Your task to perform on an android device: Search for Mexican restaurants on Maps Image 0: 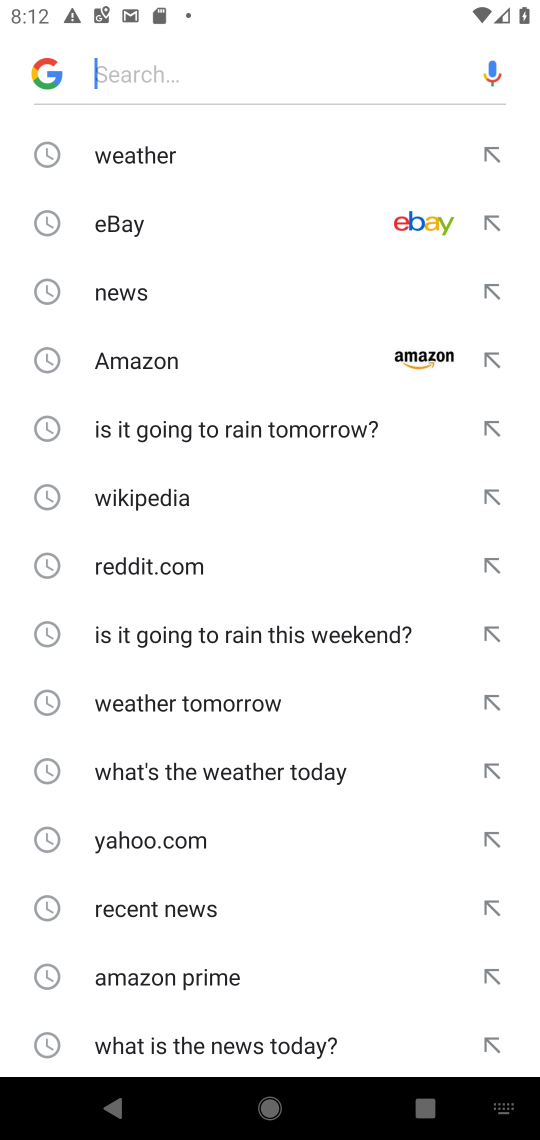
Step 0: press home button
Your task to perform on an android device: Search for Mexican restaurants on Maps Image 1: 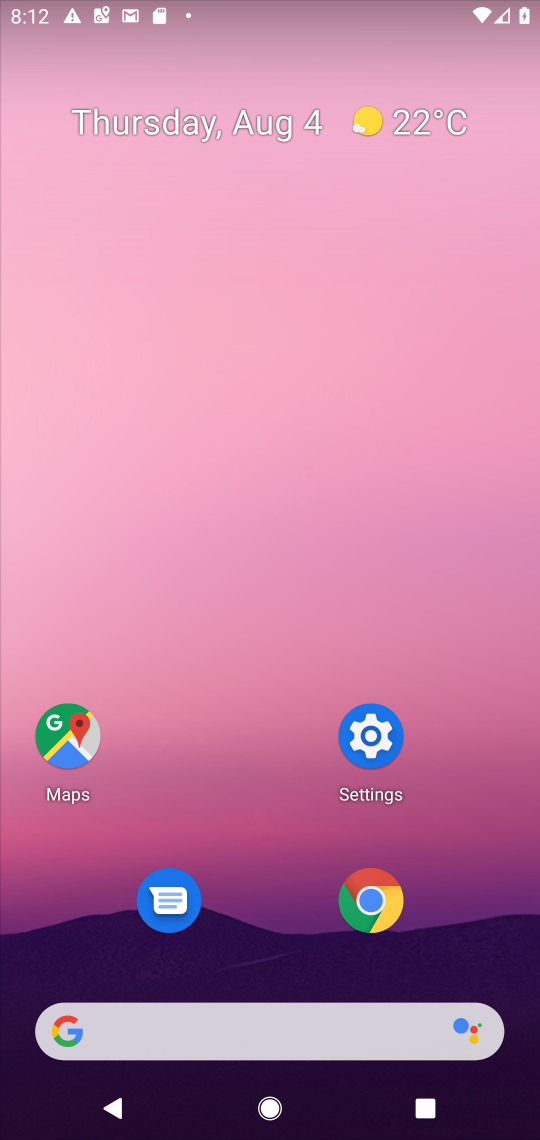
Step 1: click (76, 738)
Your task to perform on an android device: Search for Mexican restaurants on Maps Image 2: 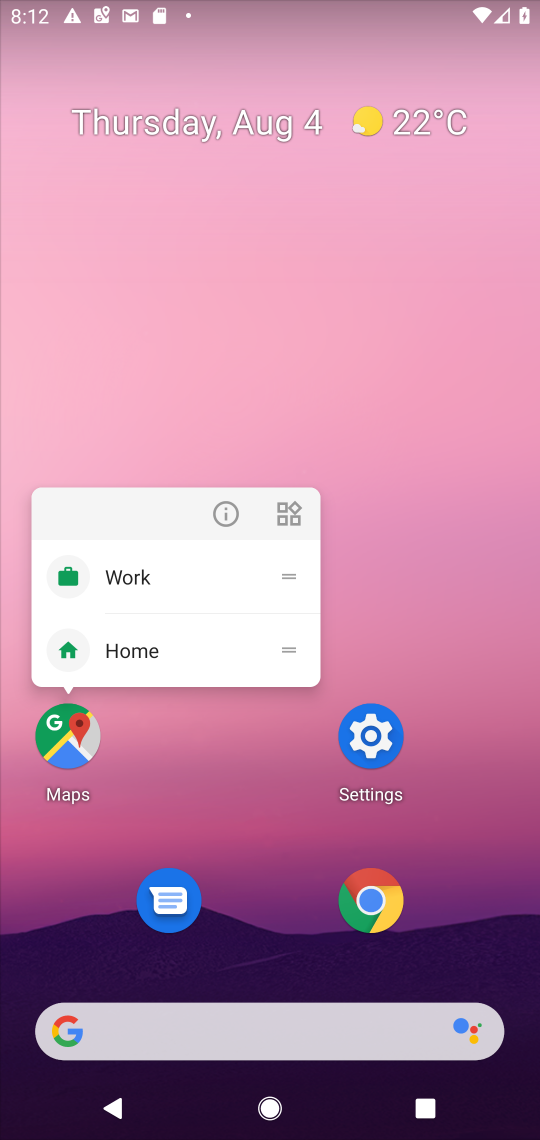
Step 2: click (69, 737)
Your task to perform on an android device: Search for Mexican restaurants on Maps Image 3: 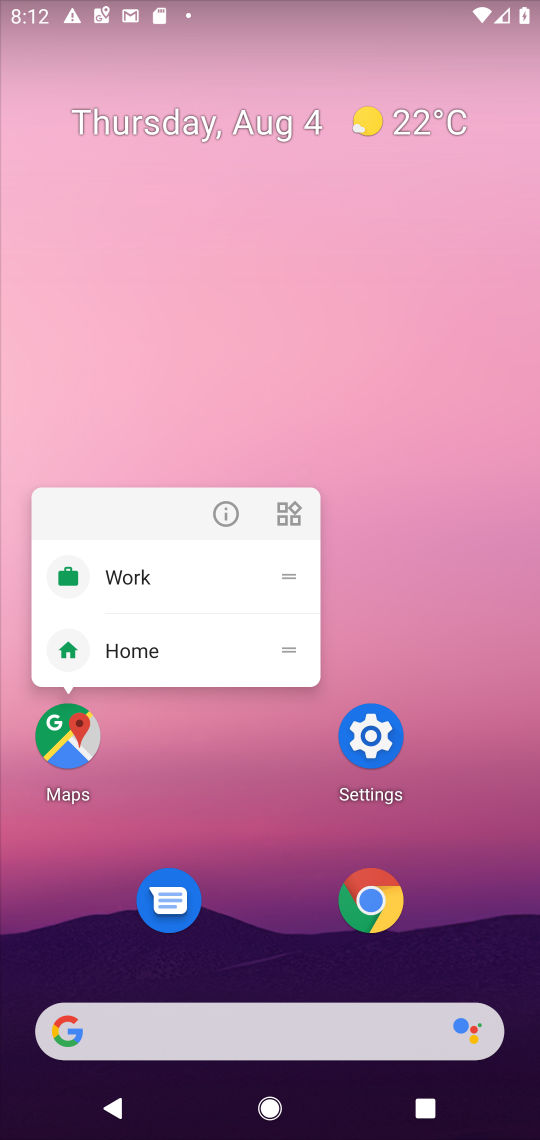
Step 3: click (72, 733)
Your task to perform on an android device: Search for Mexican restaurants on Maps Image 4: 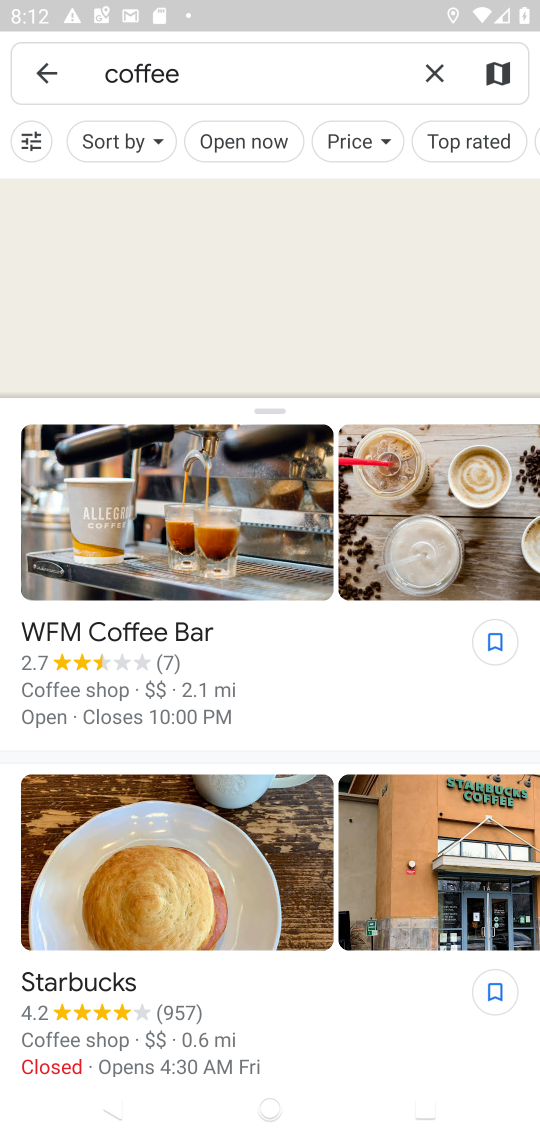
Step 4: click (430, 59)
Your task to perform on an android device: Search for Mexican restaurants on Maps Image 5: 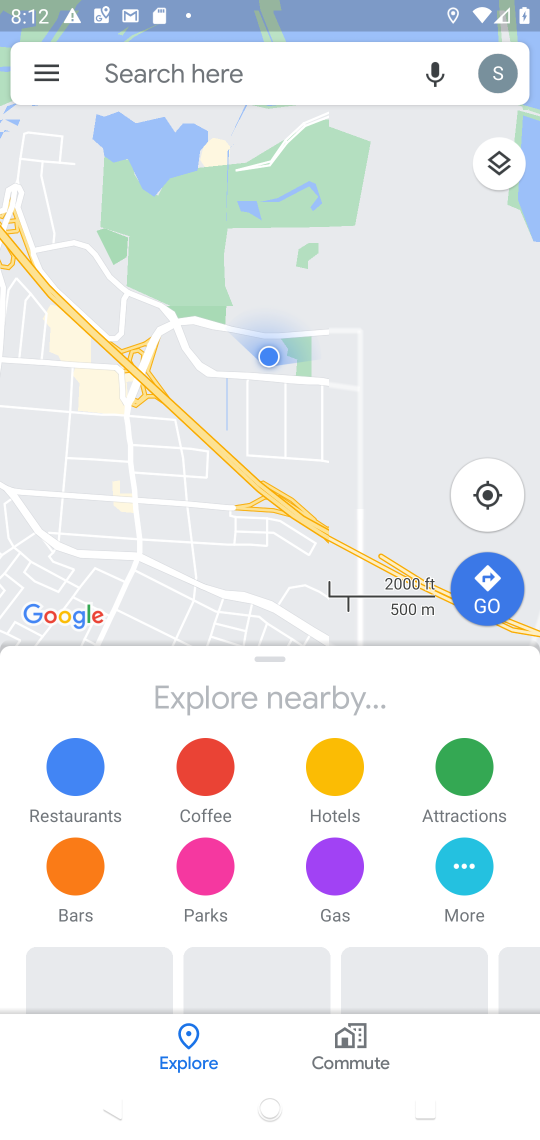
Step 5: click (211, 66)
Your task to perform on an android device: Search for Mexican restaurants on Maps Image 6: 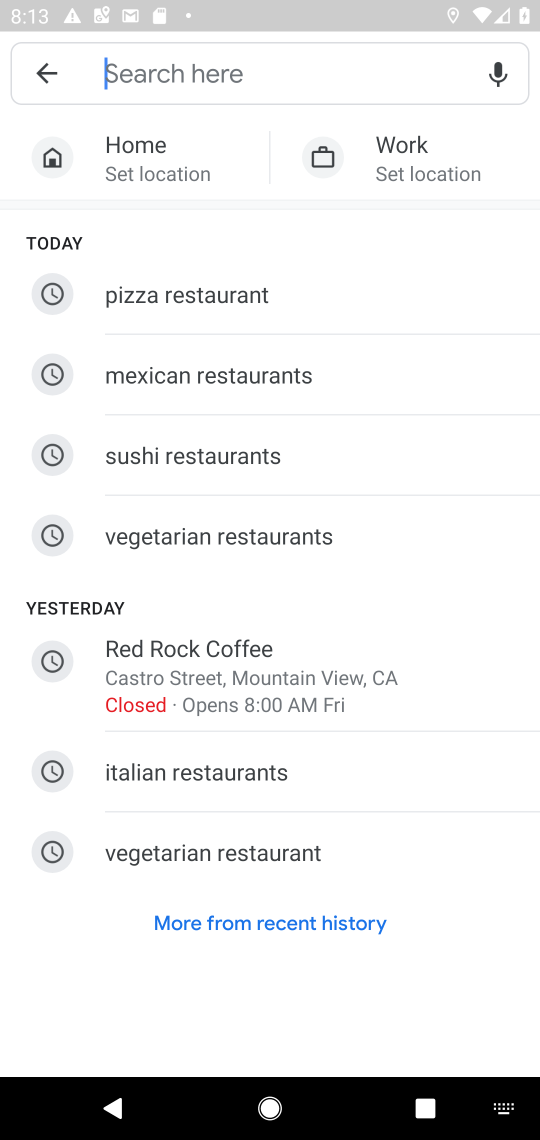
Step 6: click (199, 383)
Your task to perform on an android device: Search for Mexican restaurants on Maps Image 7: 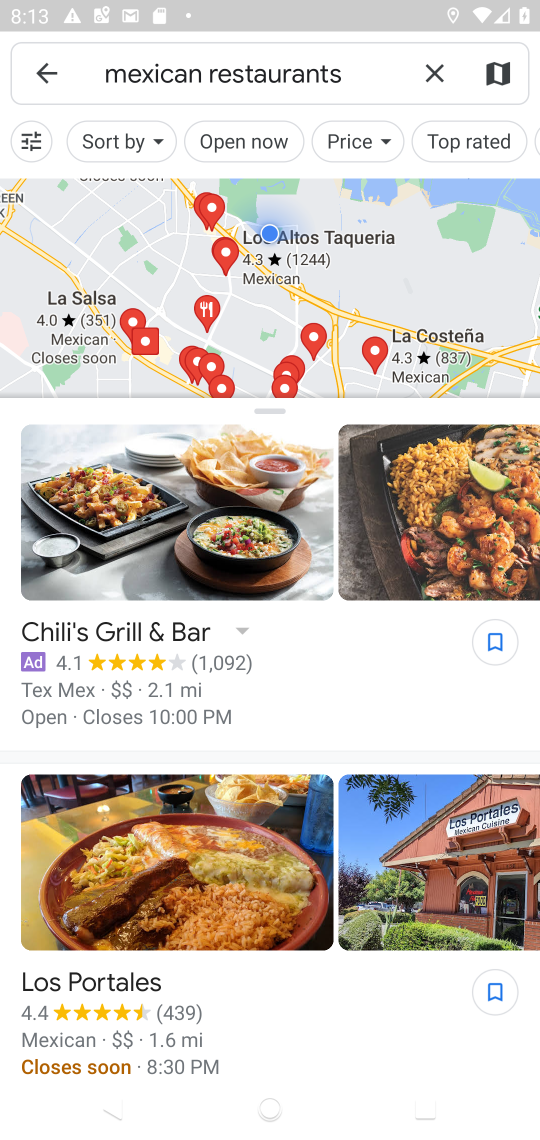
Step 7: task complete